Your task to perform on an android device: Is it going to rain tomorrow? Image 0: 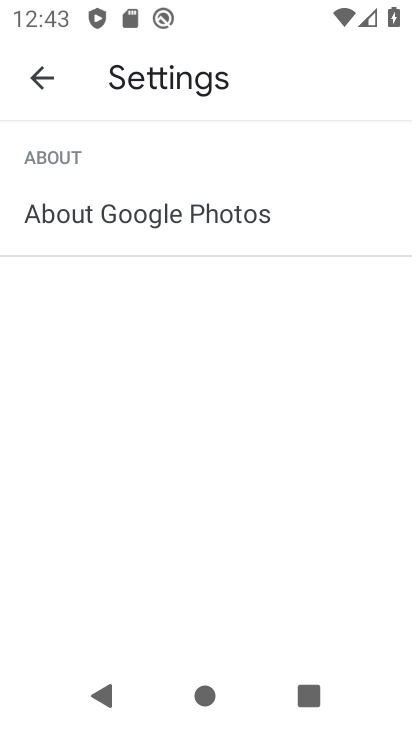
Step 0: press home button
Your task to perform on an android device: Is it going to rain tomorrow? Image 1: 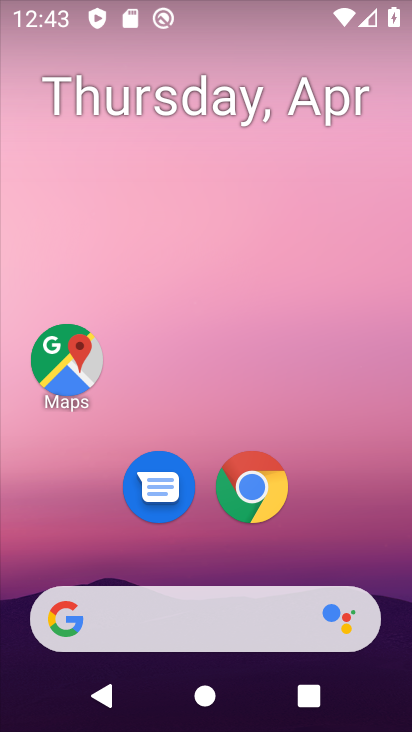
Step 1: drag from (382, 527) to (376, 134)
Your task to perform on an android device: Is it going to rain tomorrow? Image 2: 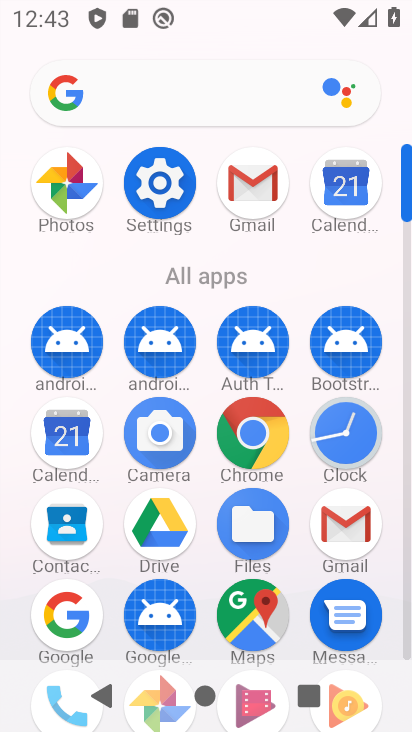
Step 2: click (267, 447)
Your task to perform on an android device: Is it going to rain tomorrow? Image 3: 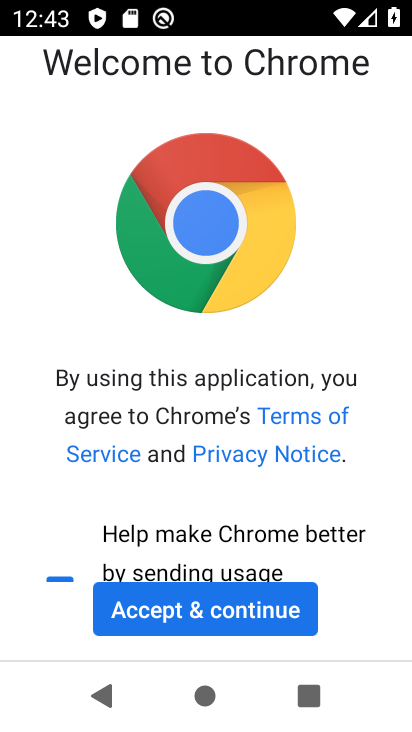
Step 3: click (241, 612)
Your task to perform on an android device: Is it going to rain tomorrow? Image 4: 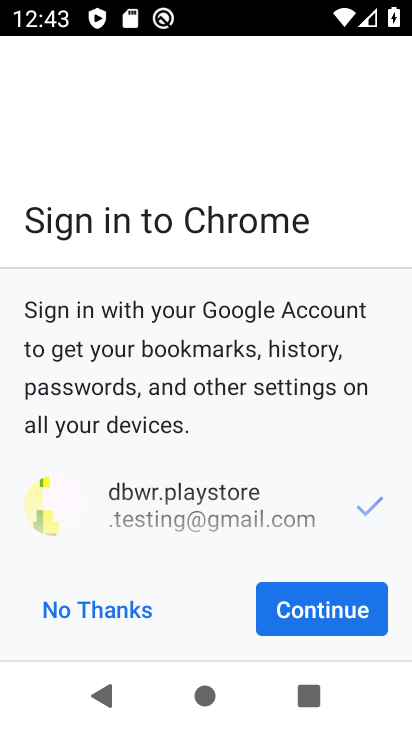
Step 4: click (317, 614)
Your task to perform on an android device: Is it going to rain tomorrow? Image 5: 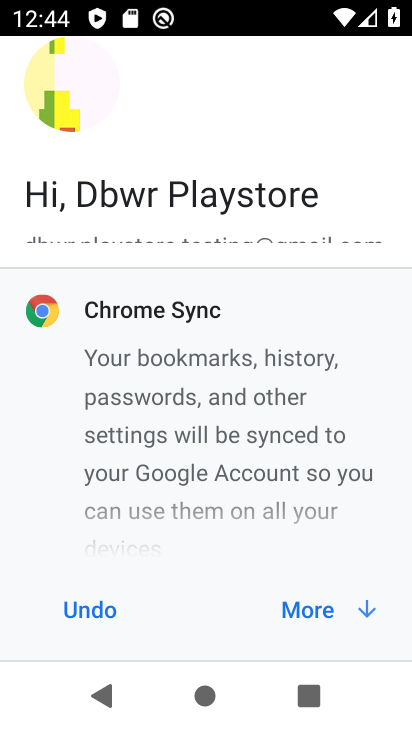
Step 5: click (316, 613)
Your task to perform on an android device: Is it going to rain tomorrow? Image 6: 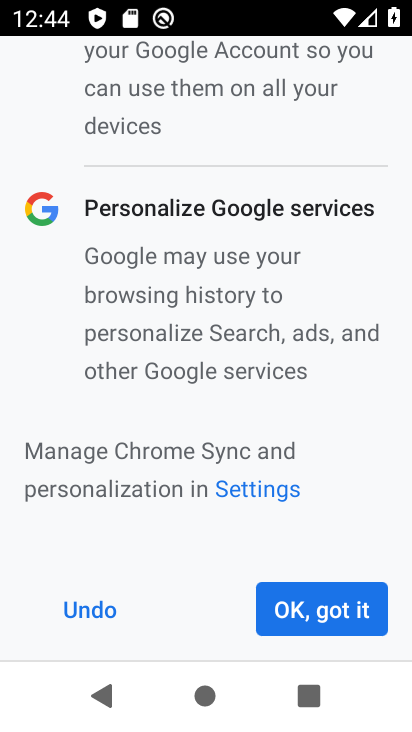
Step 6: click (316, 613)
Your task to perform on an android device: Is it going to rain tomorrow? Image 7: 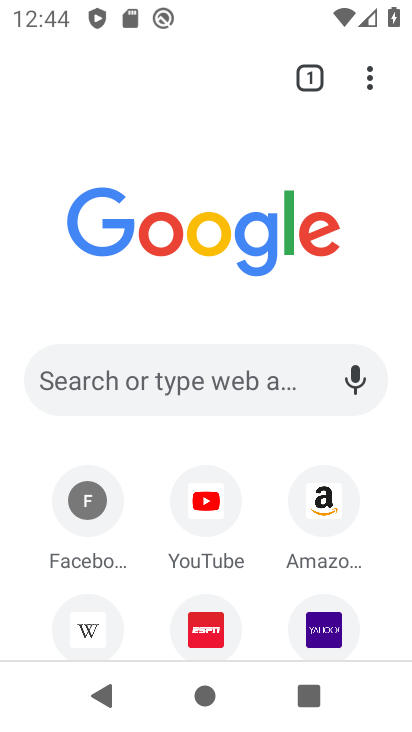
Step 7: click (217, 384)
Your task to perform on an android device: Is it going to rain tomorrow? Image 8: 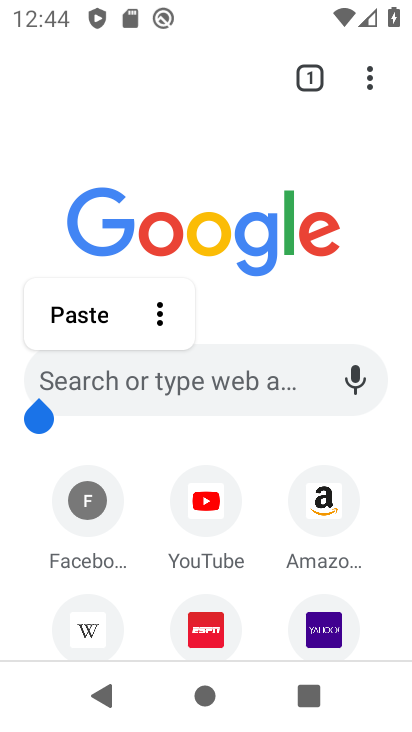
Step 8: click (215, 397)
Your task to perform on an android device: Is it going to rain tomorrow? Image 9: 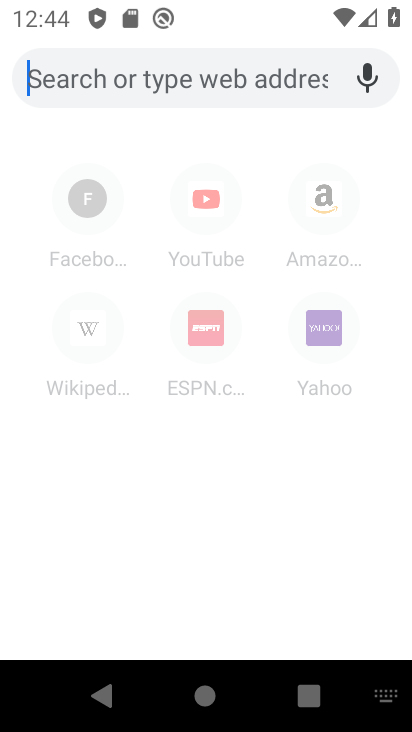
Step 9: type "is it going to rain tomorrow"
Your task to perform on an android device: Is it going to rain tomorrow? Image 10: 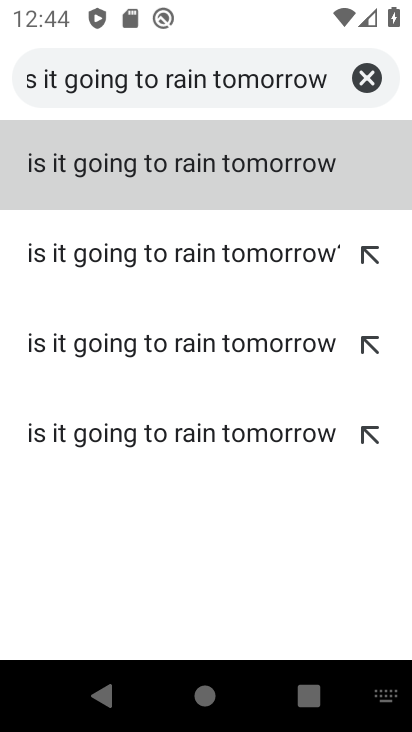
Step 10: click (78, 171)
Your task to perform on an android device: Is it going to rain tomorrow? Image 11: 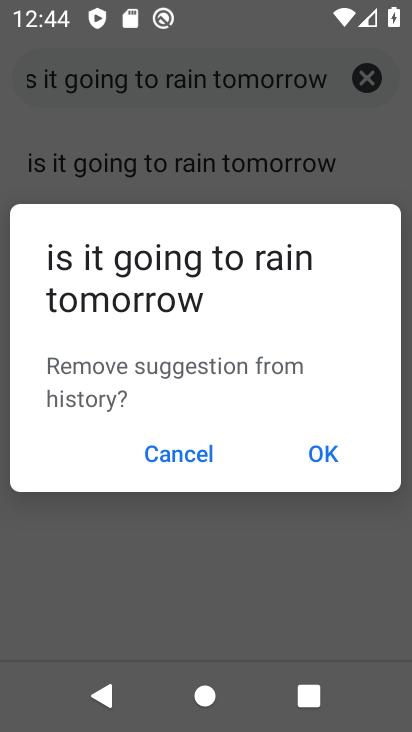
Step 11: click (315, 455)
Your task to perform on an android device: Is it going to rain tomorrow? Image 12: 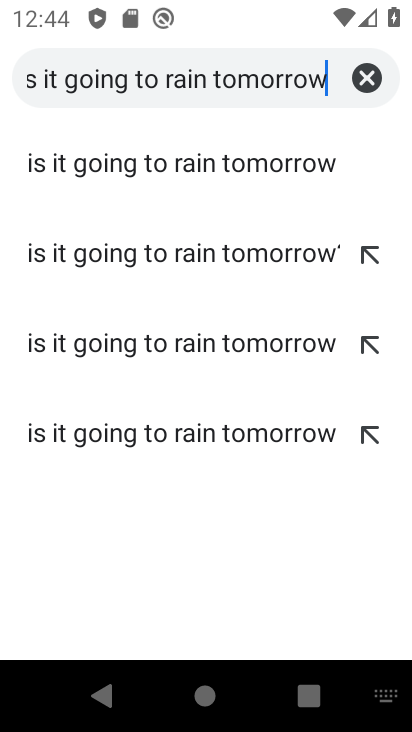
Step 12: click (158, 165)
Your task to perform on an android device: Is it going to rain tomorrow? Image 13: 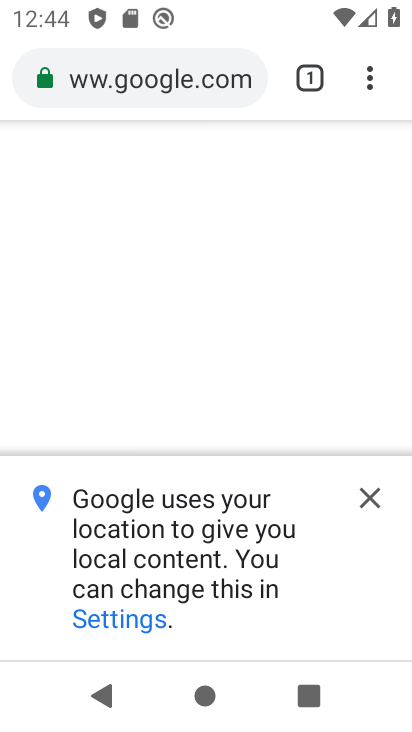
Step 13: click (362, 503)
Your task to perform on an android device: Is it going to rain tomorrow? Image 14: 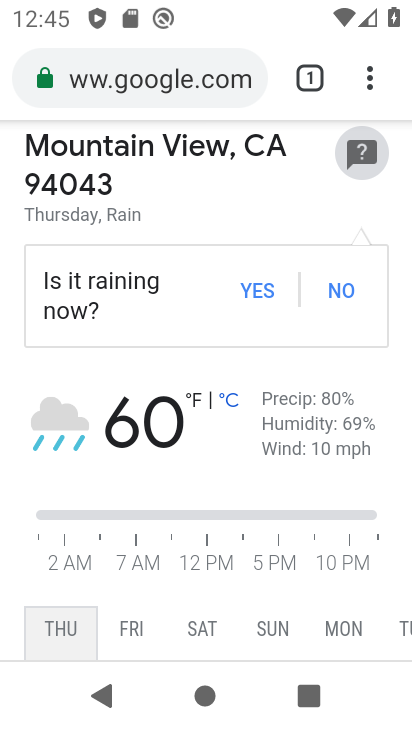
Step 14: task complete